Your task to perform on an android device: empty trash in google photos Image 0: 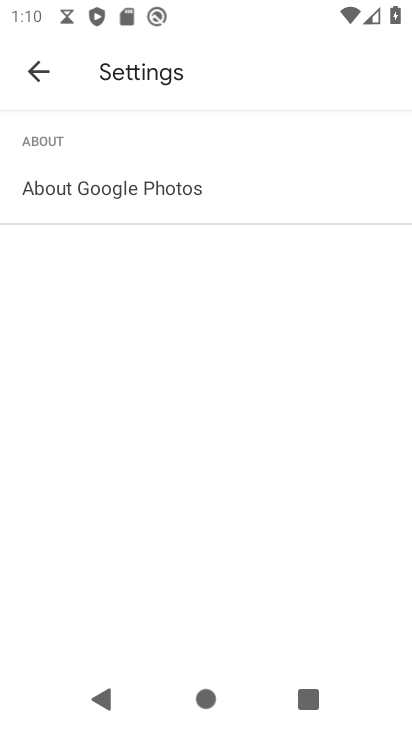
Step 0: press home button
Your task to perform on an android device: empty trash in google photos Image 1: 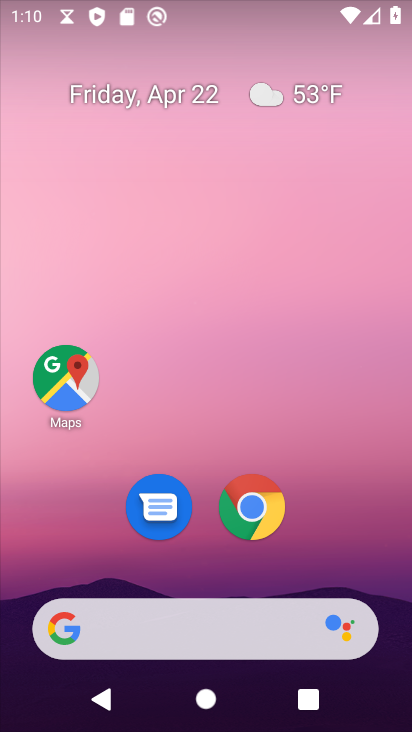
Step 1: drag from (337, 494) to (252, 63)
Your task to perform on an android device: empty trash in google photos Image 2: 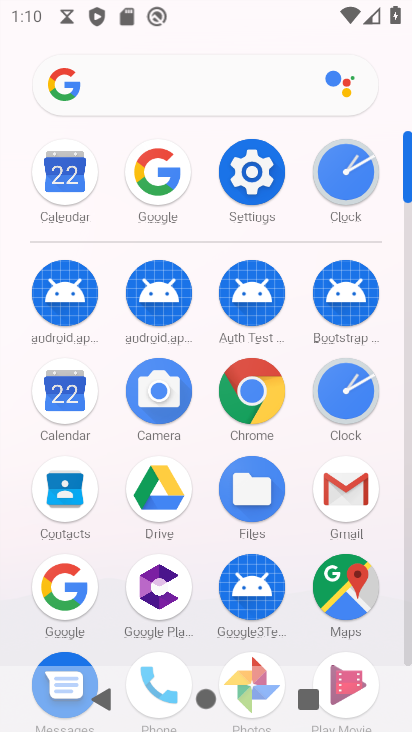
Step 2: drag from (203, 579) to (216, 365)
Your task to perform on an android device: empty trash in google photos Image 3: 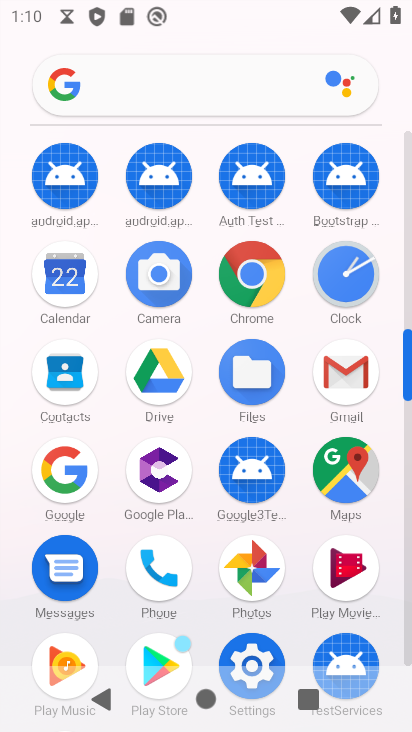
Step 3: click (233, 566)
Your task to perform on an android device: empty trash in google photos Image 4: 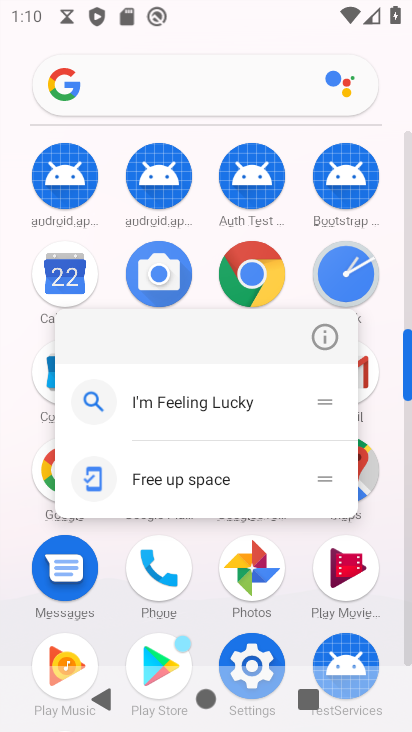
Step 4: click (235, 567)
Your task to perform on an android device: empty trash in google photos Image 5: 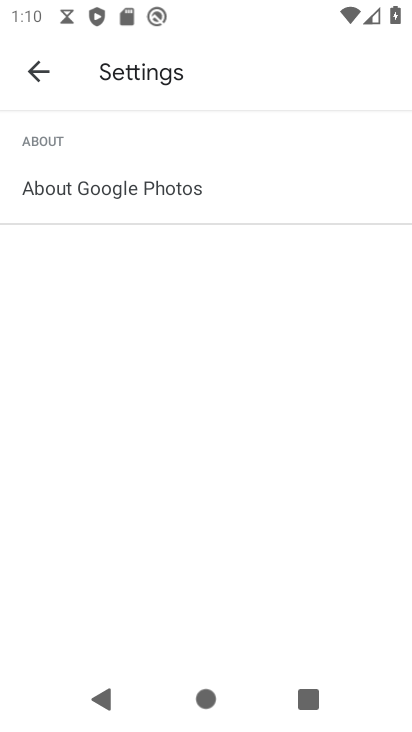
Step 5: click (43, 75)
Your task to perform on an android device: empty trash in google photos Image 6: 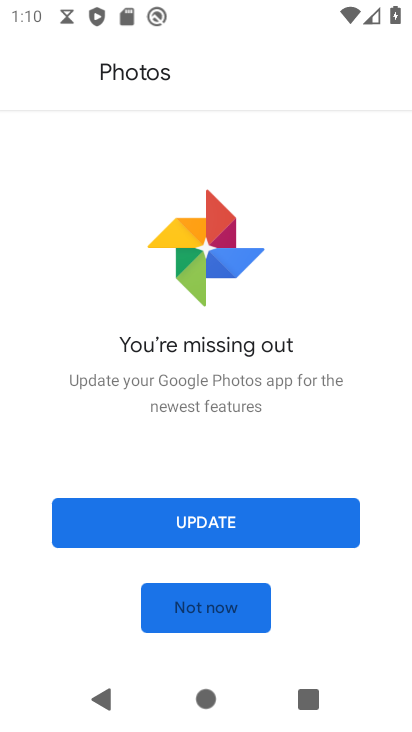
Step 6: click (211, 613)
Your task to perform on an android device: empty trash in google photos Image 7: 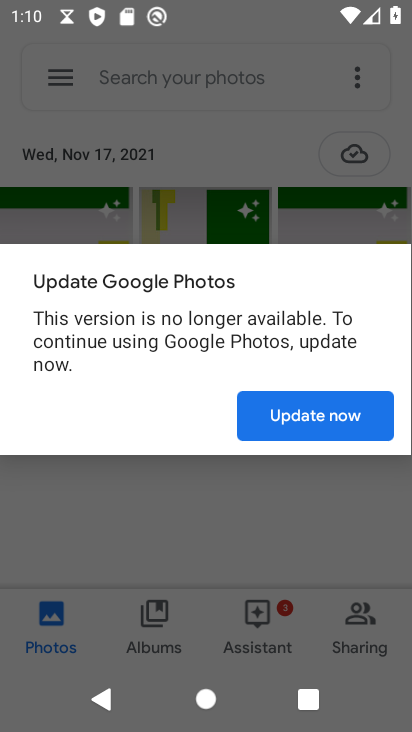
Step 7: click (316, 404)
Your task to perform on an android device: empty trash in google photos Image 8: 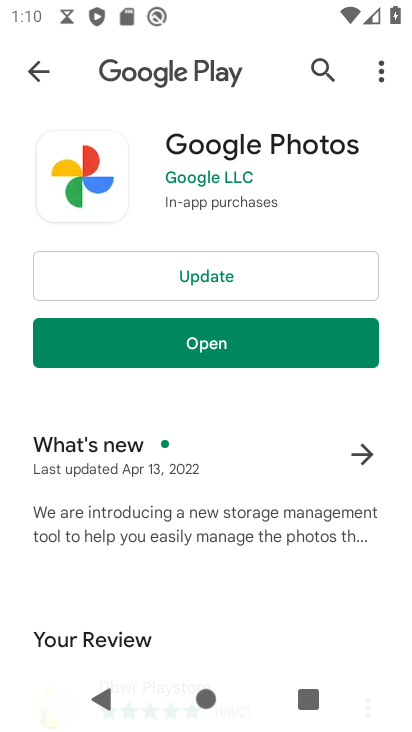
Step 8: click (334, 280)
Your task to perform on an android device: empty trash in google photos Image 9: 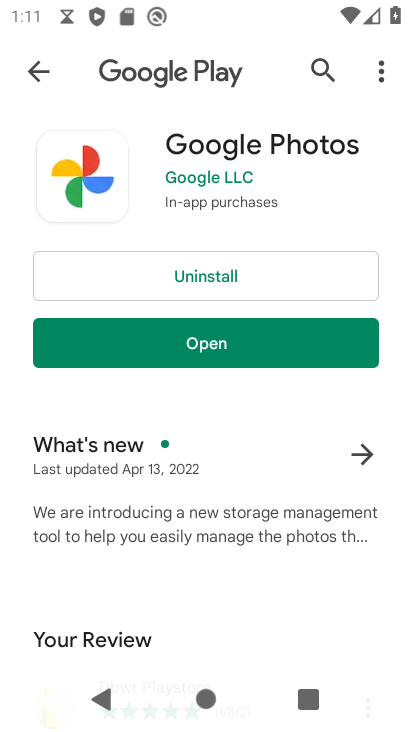
Step 9: click (240, 358)
Your task to perform on an android device: empty trash in google photos Image 10: 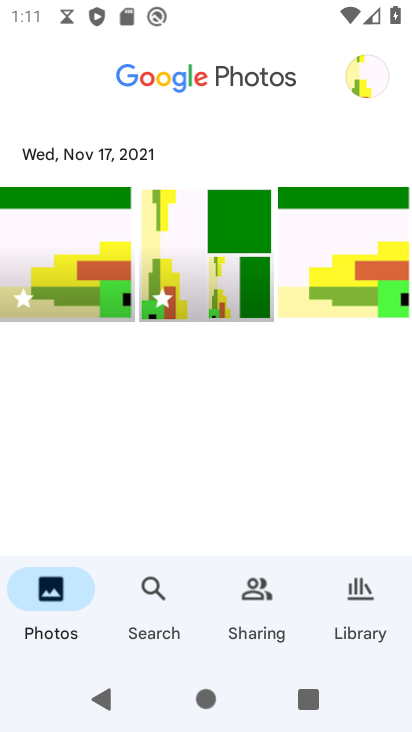
Step 10: click (368, 610)
Your task to perform on an android device: empty trash in google photos Image 11: 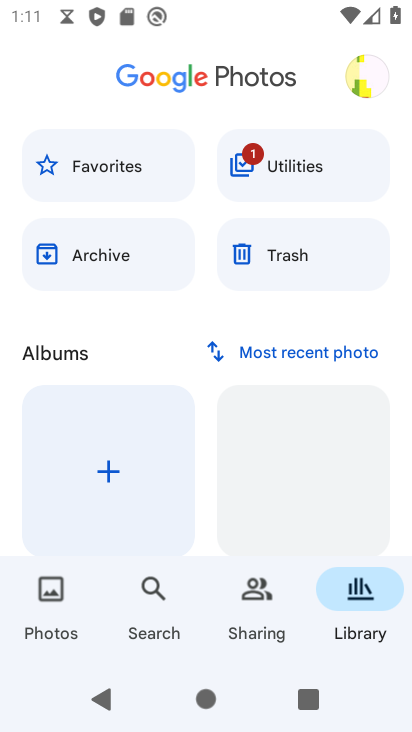
Step 11: click (325, 264)
Your task to perform on an android device: empty trash in google photos Image 12: 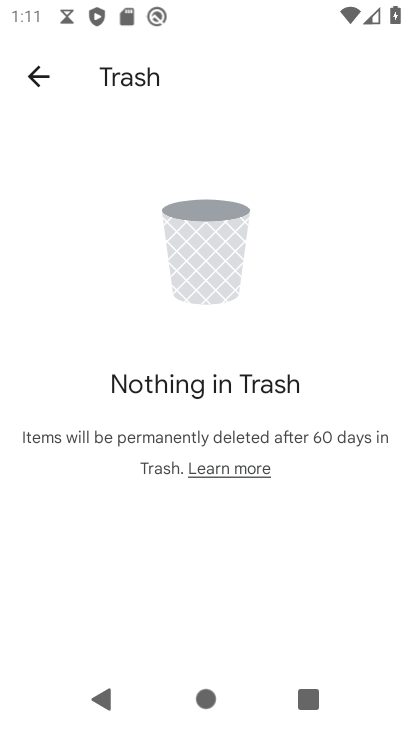
Step 12: task complete